Your task to perform on an android device: turn off wifi Image 0: 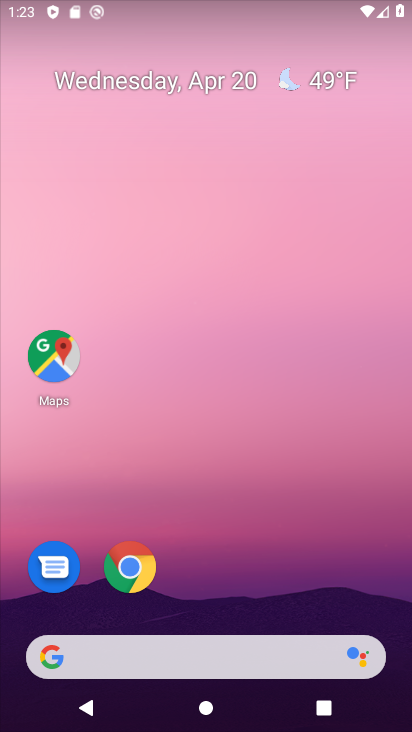
Step 0: drag from (279, 562) to (253, 94)
Your task to perform on an android device: turn off wifi Image 1: 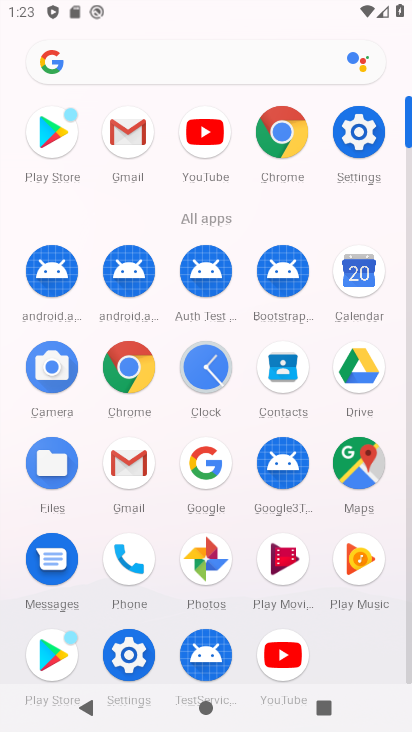
Step 1: click (359, 139)
Your task to perform on an android device: turn off wifi Image 2: 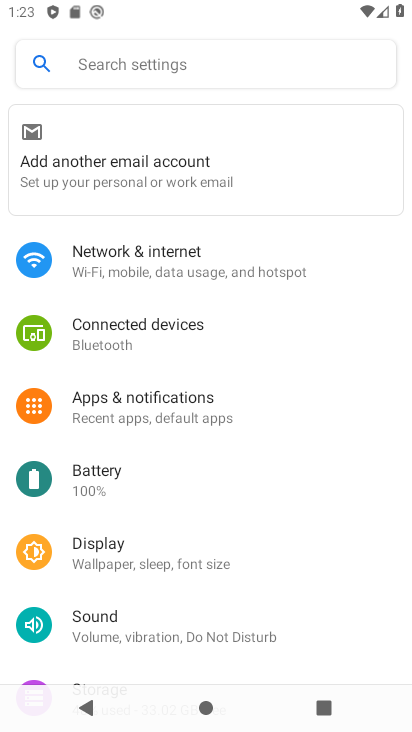
Step 2: click (159, 269)
Your task to perform on an android device: turn off wifi Image 3: 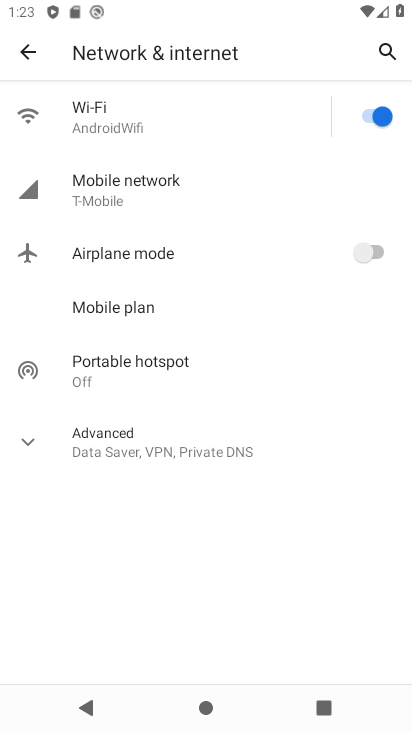
Step 3: click (384, 112)
Your task to perform on an android device: turn off wifi Image 4: 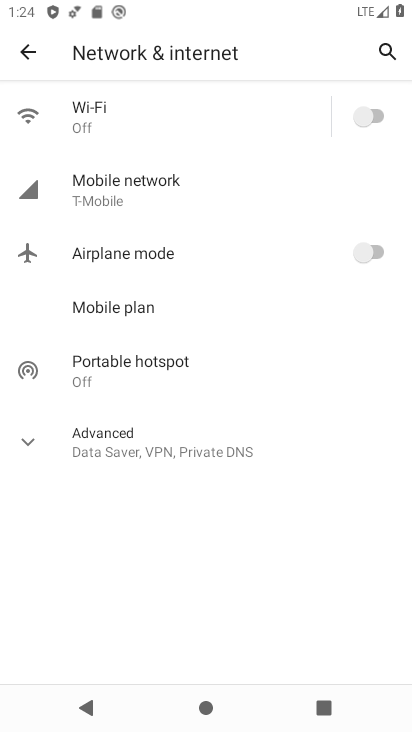
Step 4: task complete